Your task to perform on an android device: turn on javascript in the chrome app Image 0: 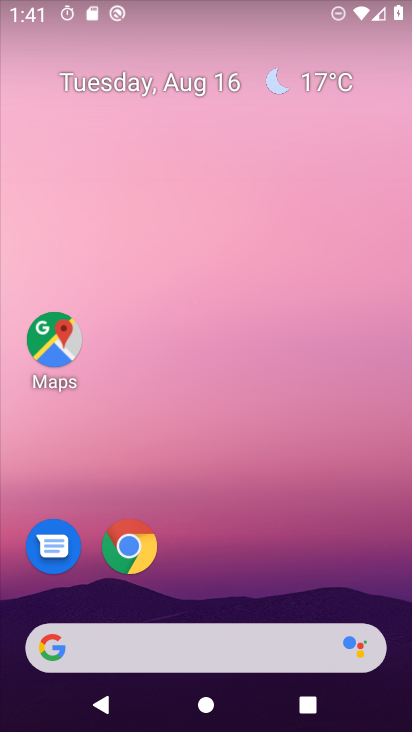
Step 0: click (128, 542)
Your task to perform on an android device: turn on javascript in the chrome app Image 1: 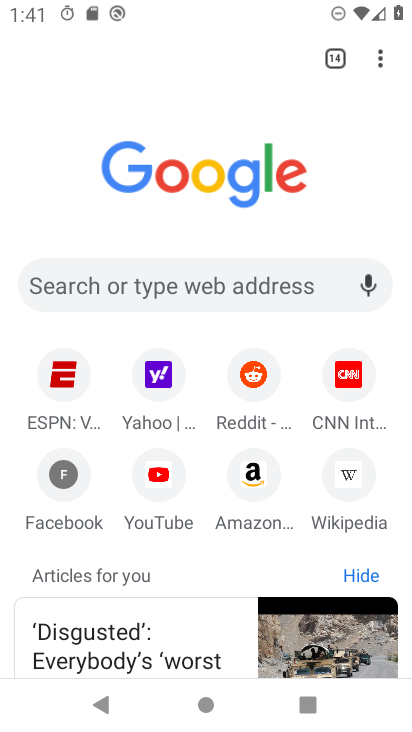
Step 1: click (379, 61)
Your task to perform on an android device: turn on javascript in the chrome app Image 2: 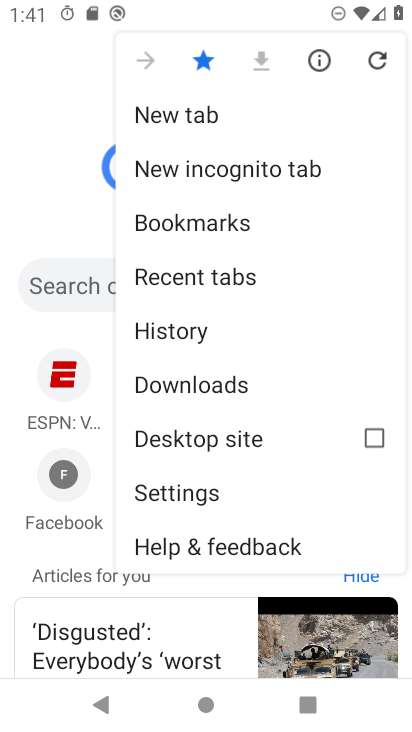
Step 2: click (170, 493)
Your task to perform on an android device: turn on javascript in the chrome app Image 3: 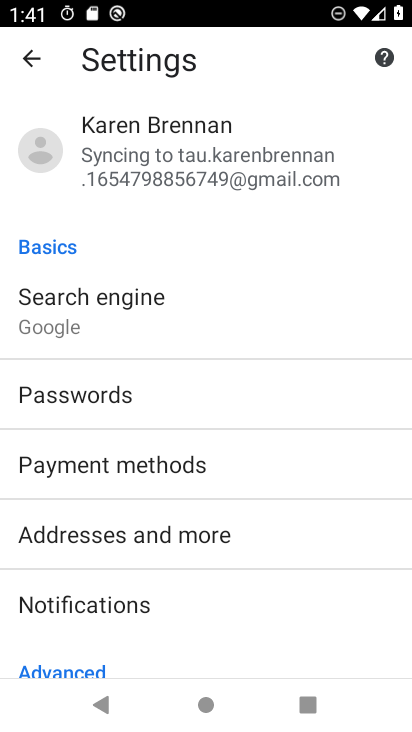
Step 3: drag from (84, 640) to (78, 278)
Your task to perform on an android device: turn on javascript in the chrome app Image 4: 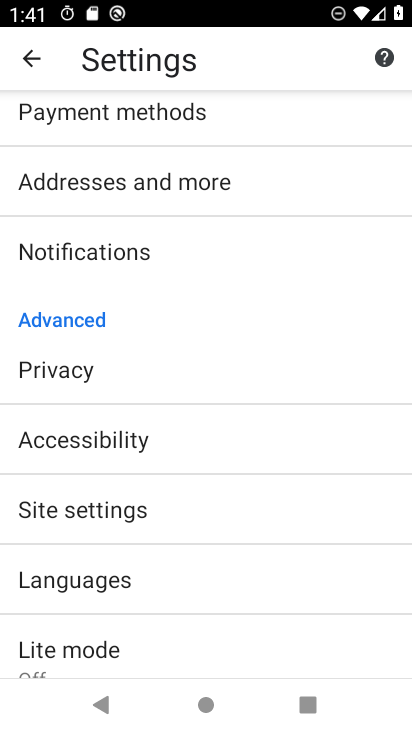
Step 4: click (88, 514)
Your task to perform on an android device: turn on javascript in the chrome app Image 5: 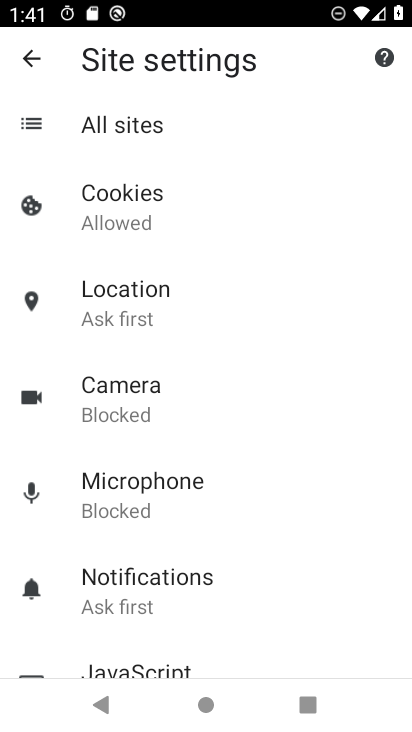
Step 5: click (133, 670)
Your task to perform on an android device: turn on javascript in the chrome app Image 6: 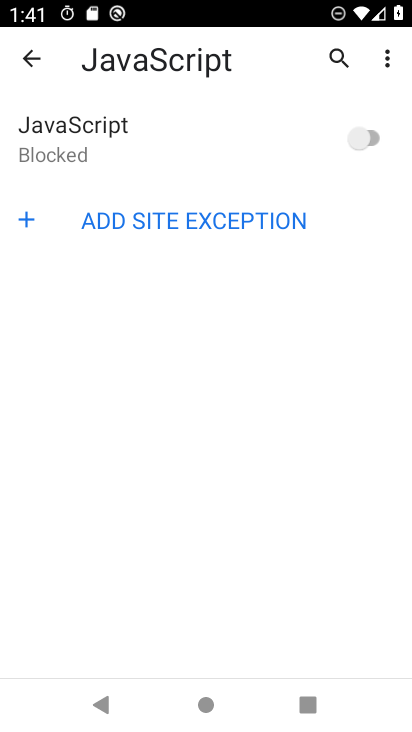
Step 6: click (376, 136)
Your task to perform on an android device: turn on javascript in the chrome app Image 7: 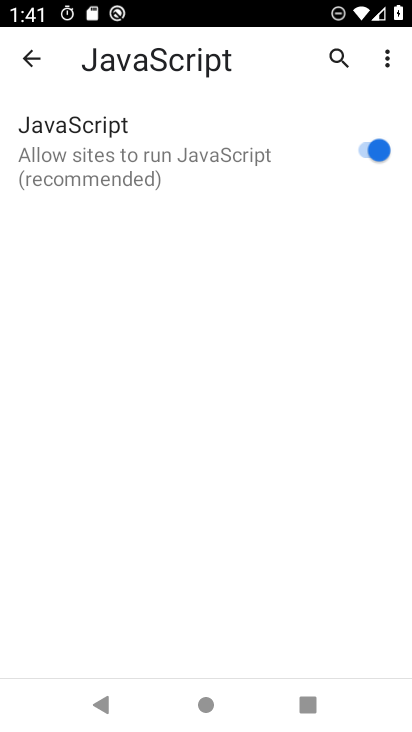
Step 7: task complete